Your task to perform on an android device: change notification settings in the gmail app Image 0: 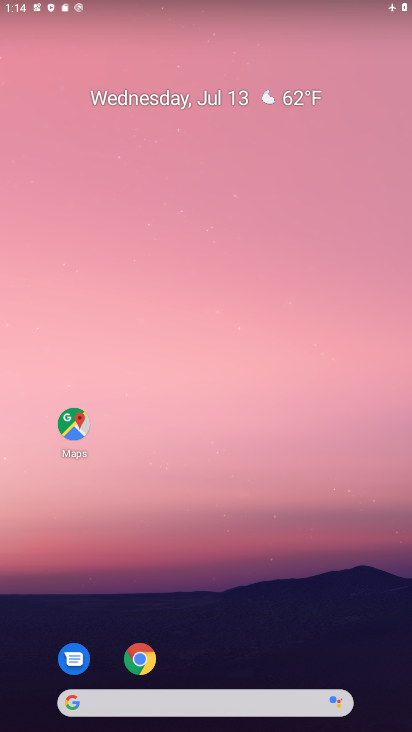
Step 0: drag from (214, 728) to (203, 54)
Your task to perform on an android device: change notification settings in the gmail app Image 1: 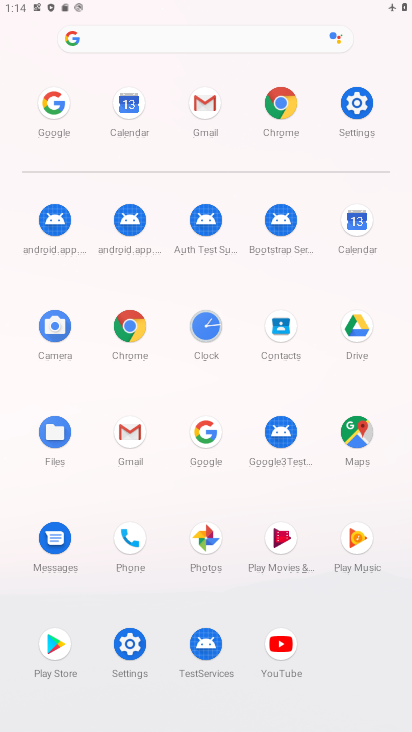
Step 1: click (138, 428)
Your task to perform on an android device: change notification settings in the gmail app Image 2: 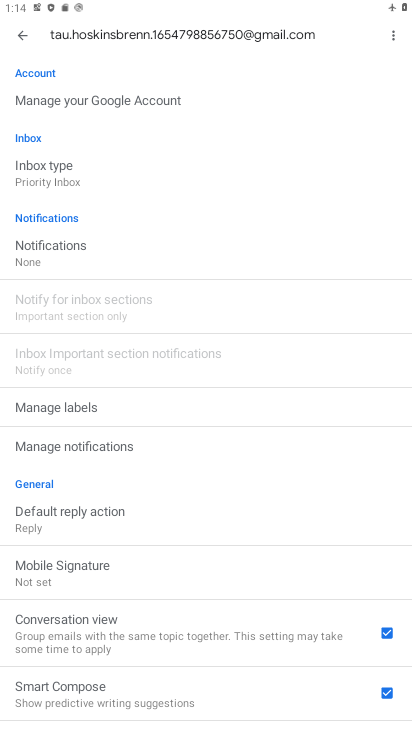
Step 2: click (52, 249)
Your task to perform on an android device: change notification settings in the gmail app Image 3: 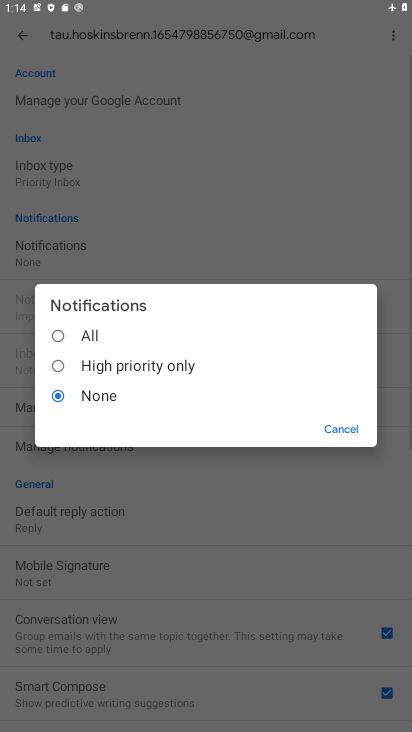
Step 3: click (57, 338)
Your task to perform on an android device: change notification settings in the gmail app Image 4: 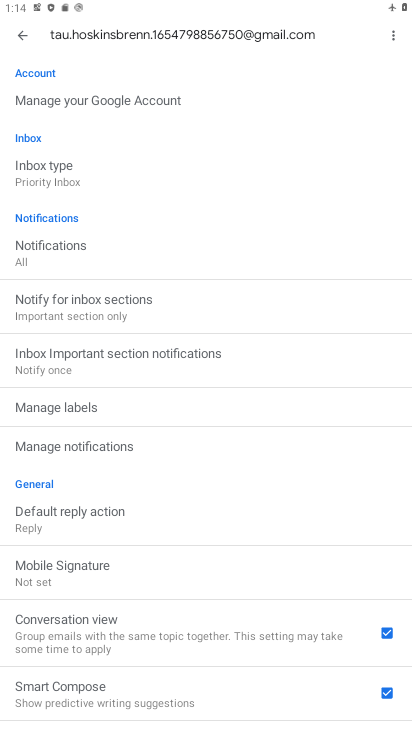
Step 4: task complete